Your task to perform on an android device: create a new album in the google photos Image 0: 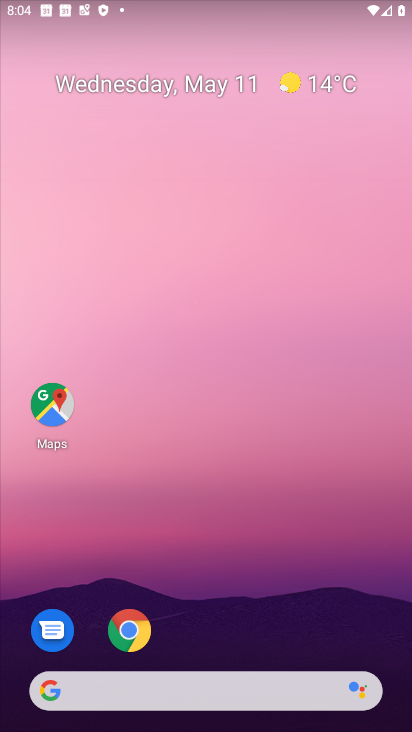
Step 0: drag from (217, 656) to (209, 52)
Your task to perform on an android device: create a new album in the google photos Image 1: 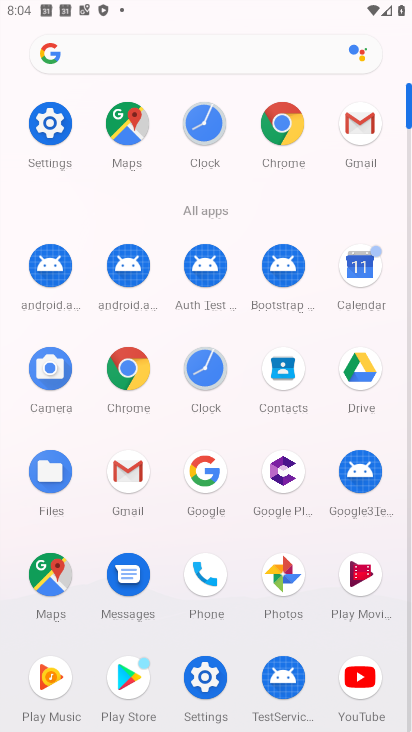
Step 1: click (268, 579)
Your task to perform on an android device: create a new album in the google photos Image 2: 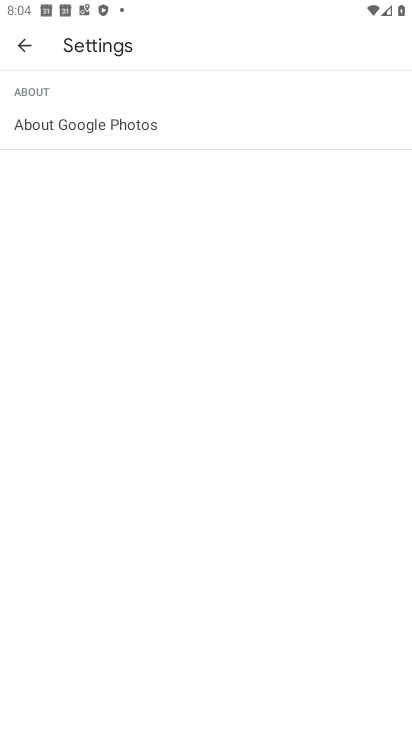
Step 2: click (18, 45)
Your task to perform on an android device: create a new album in the google photos Image 3: 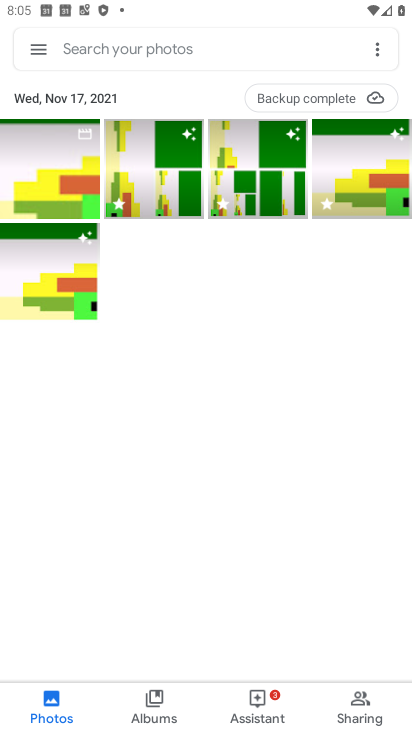
Step 3: click (51, 187)
Your task to perform on an android device: create a new album in the google photos Image 4: 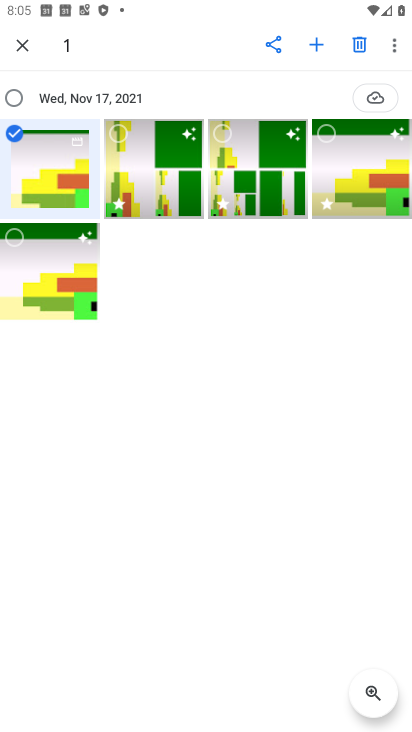
Step 4: click (123, 177)
Your task to perform on an android device: create a new album in the google photos Image 5: 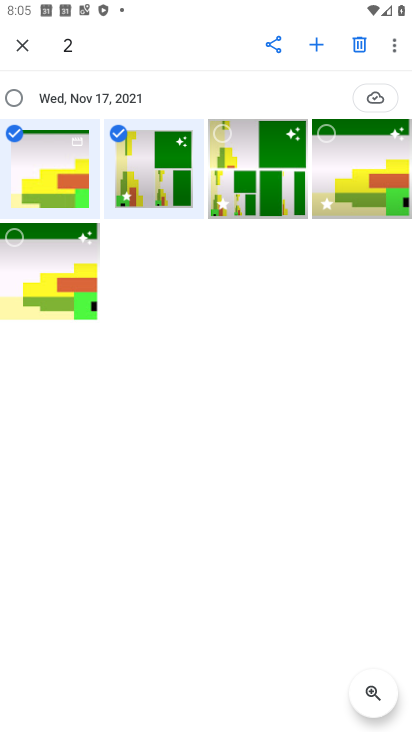
Step 5: click (317, 48)
Your task to perform on an android device: create a new album in the google photos Image 6: 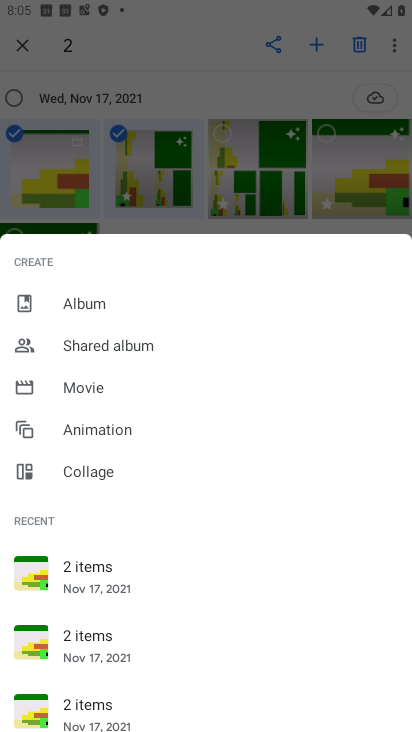
Step 6: click (89, 311)
Your task to perform on an android device: create a new album in the google photos Image 7: 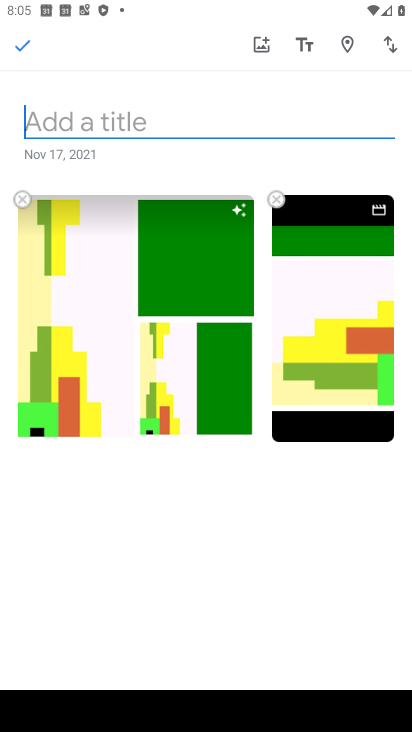
Step 7: type "nji"
Your task to perform on an android device: create a new album in the google photos Image 8: 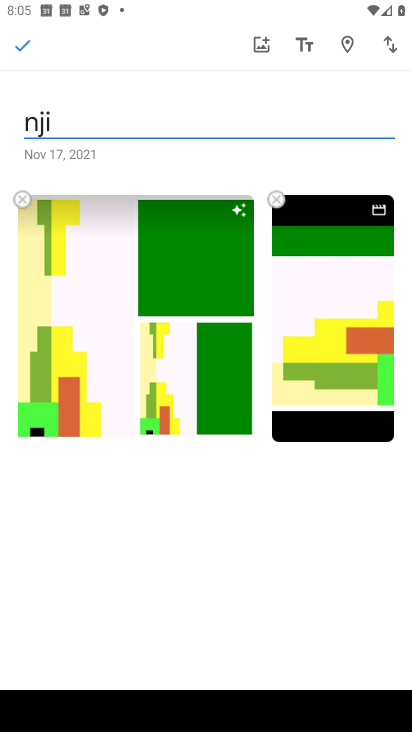
Step 8: click (22, 54)
Your task to perform on an android device: create a new album in the google photos Image 9: 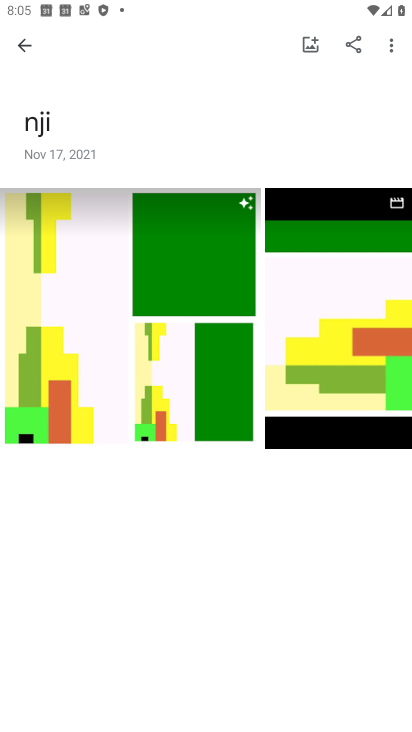
Step 9: task complete